Your task to perform on an android device: Search for "razer blade" on walmart, select the first entry, add it to the cart, then select checkout. Image 0: 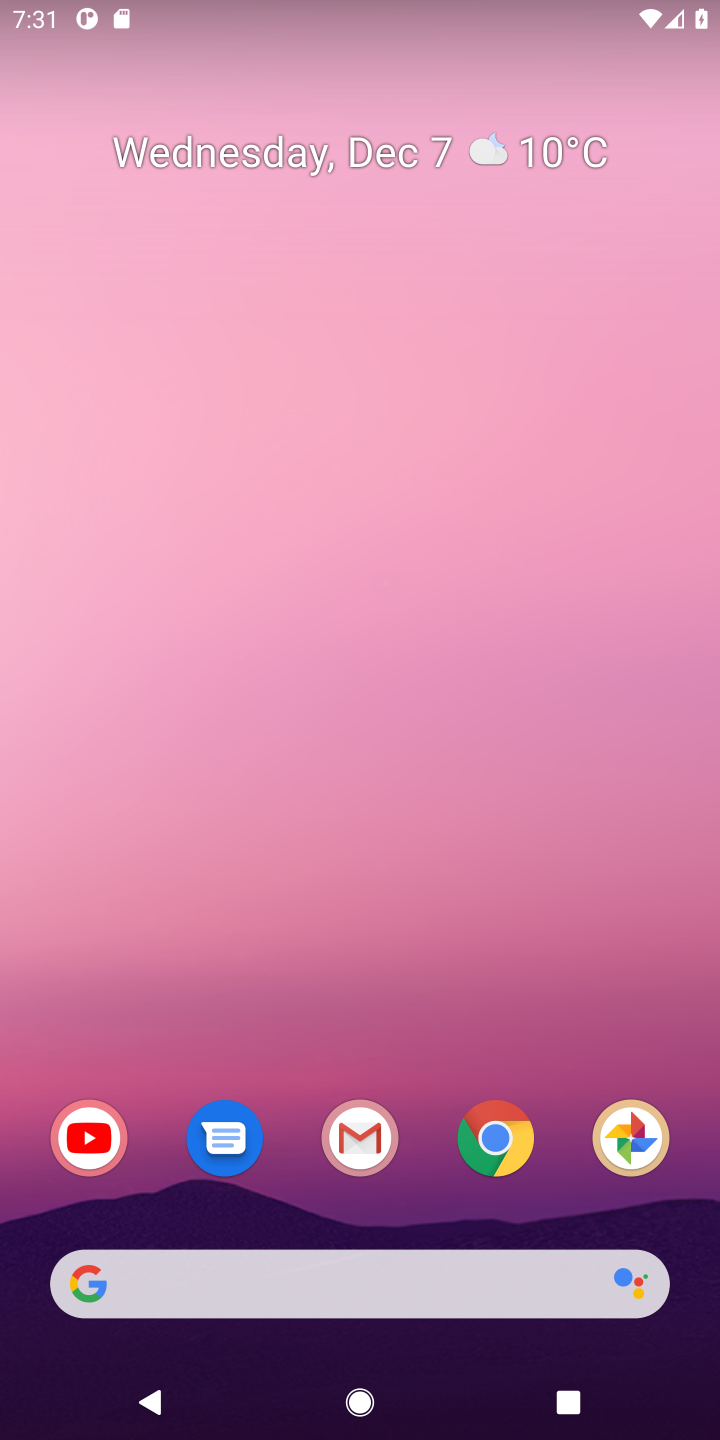
Step 0: press home button
Your task to perform on an android device: Search for "razer blade" on walmart, select the first entry, add it to the cart, then select checkout. Image 1: 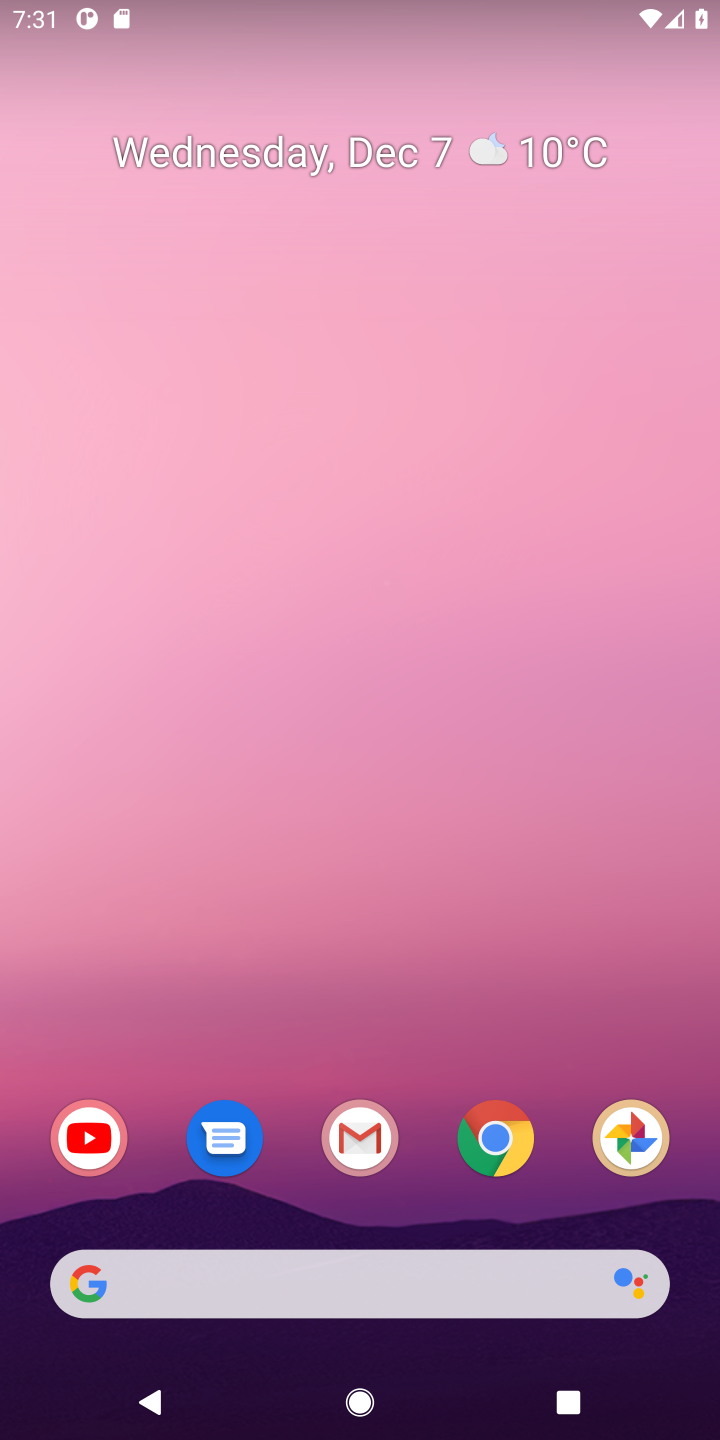
Step 1: click (175, 1276)
Your task to perform on an android device: Search for "razer blade" on walmart, select the first entry, add it to the cart, then select checkout. Image 2: 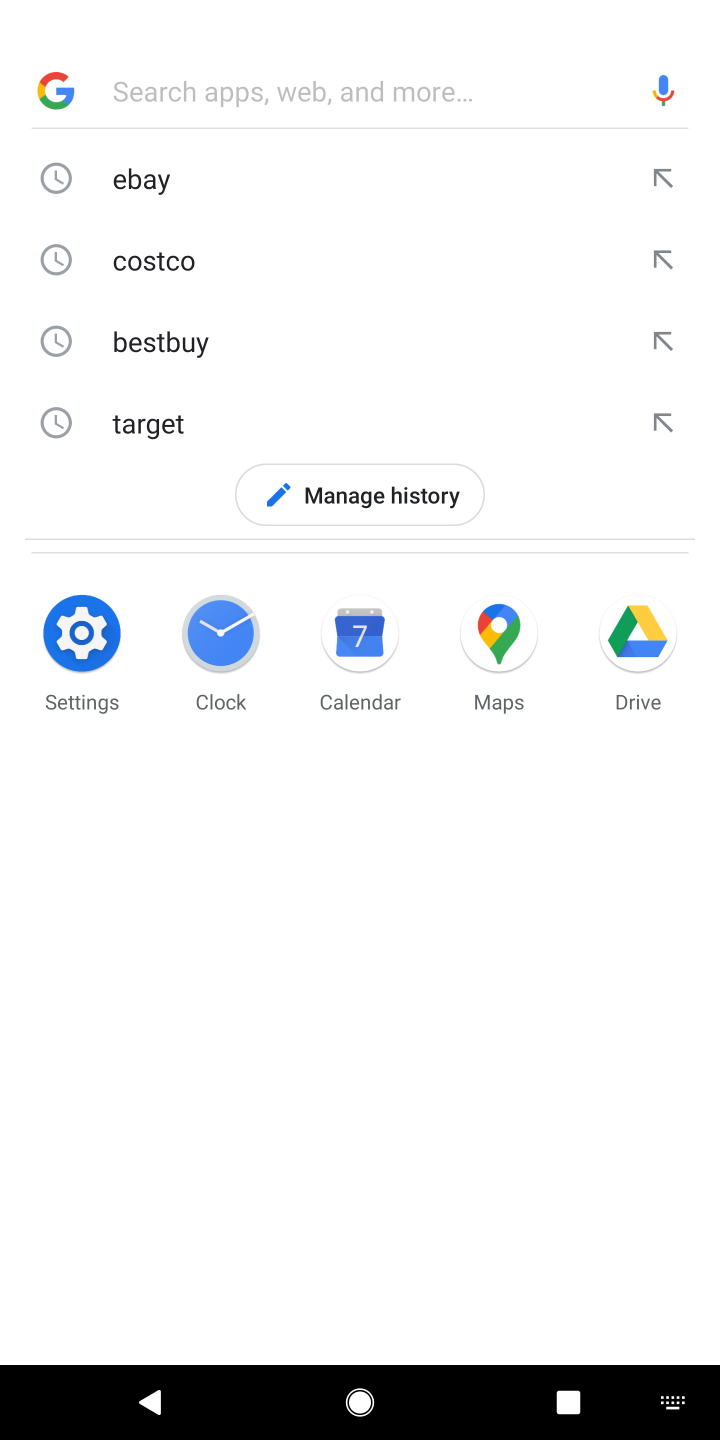
Step 2: type "walmart"
Your task to perform on an android device: Search for "razer blade" on walmart, select the first entry, add it to the cart, then select checkout. Image 3: 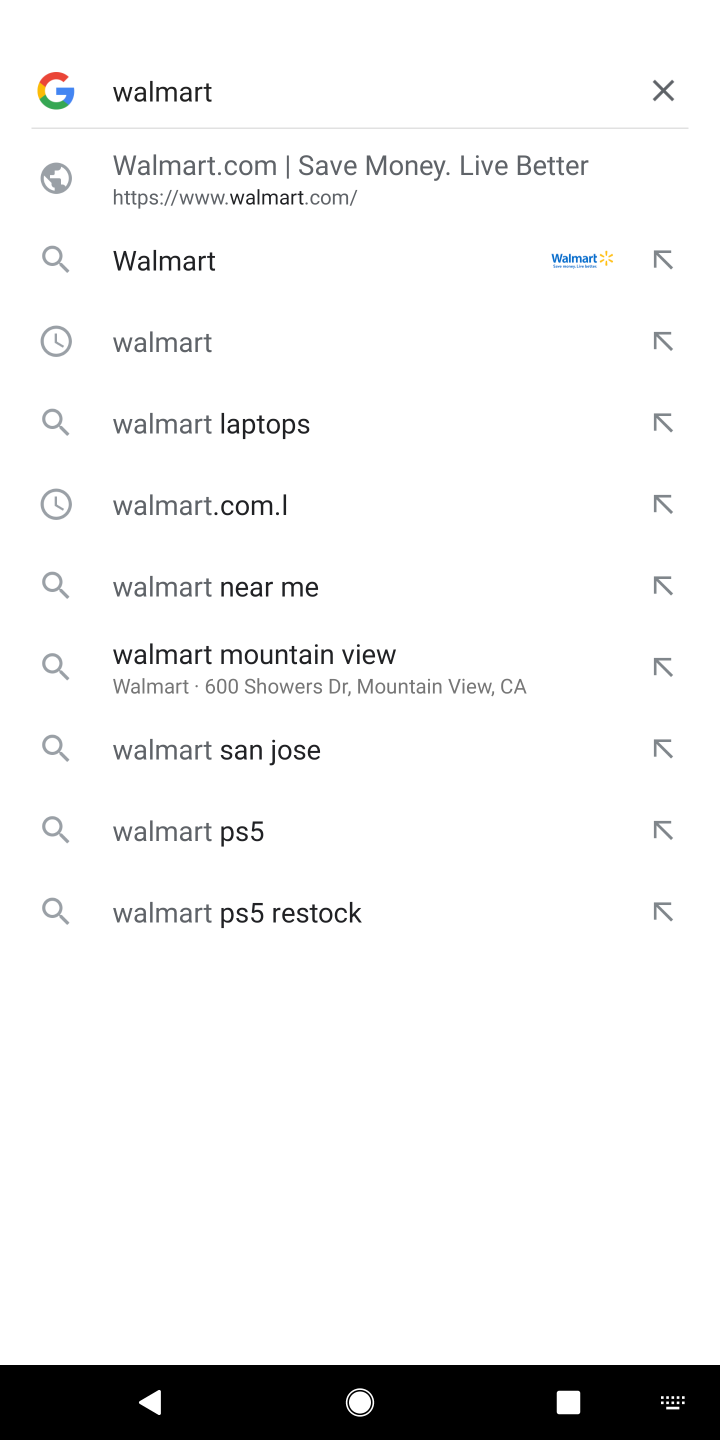
Step 3: press enter
Your task to perform on an android device: Search for "razer blade" on walmart, select the first entry, add it to the cart, then select checkout. Image 4: 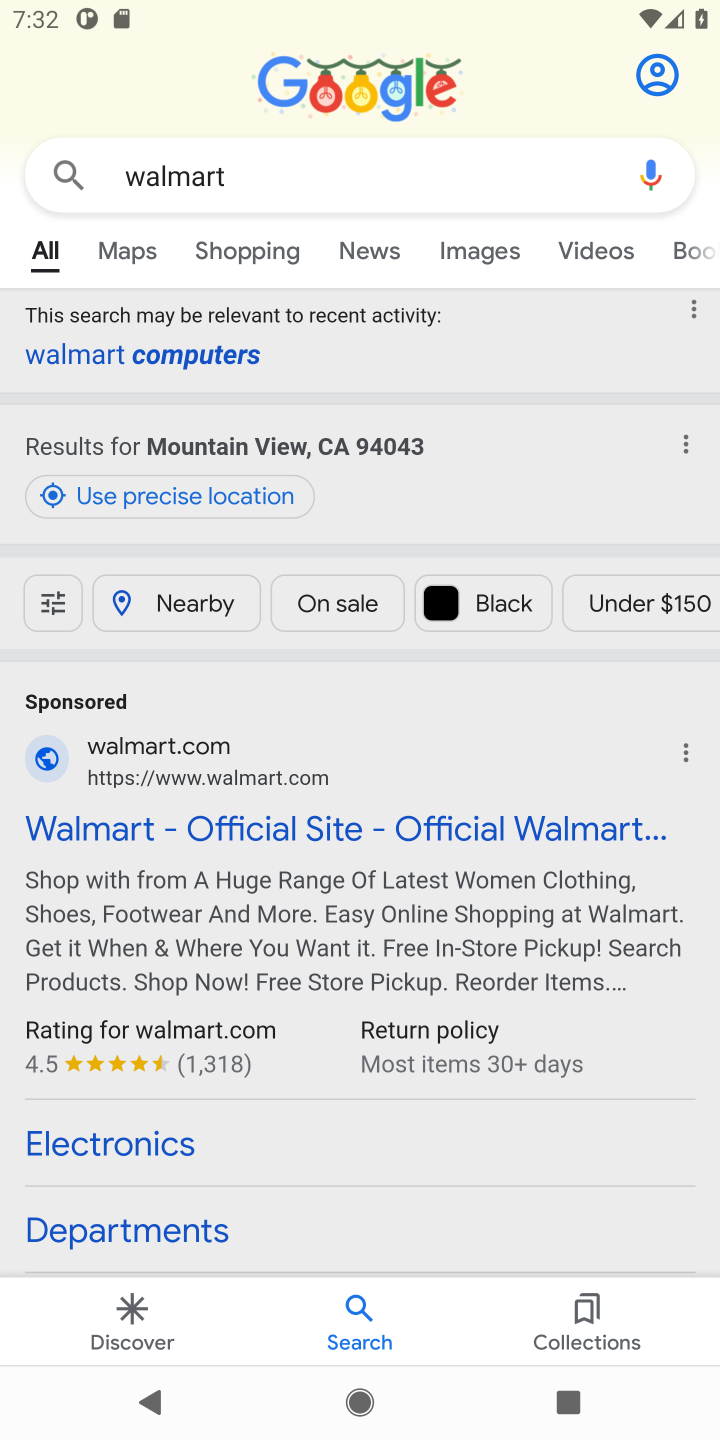
Step 4: click (484, 827)
Your task to perform on an android device: Search for "razer blade" on walmart, select the first entry, add it to the cart, then select checkout. Image 5: 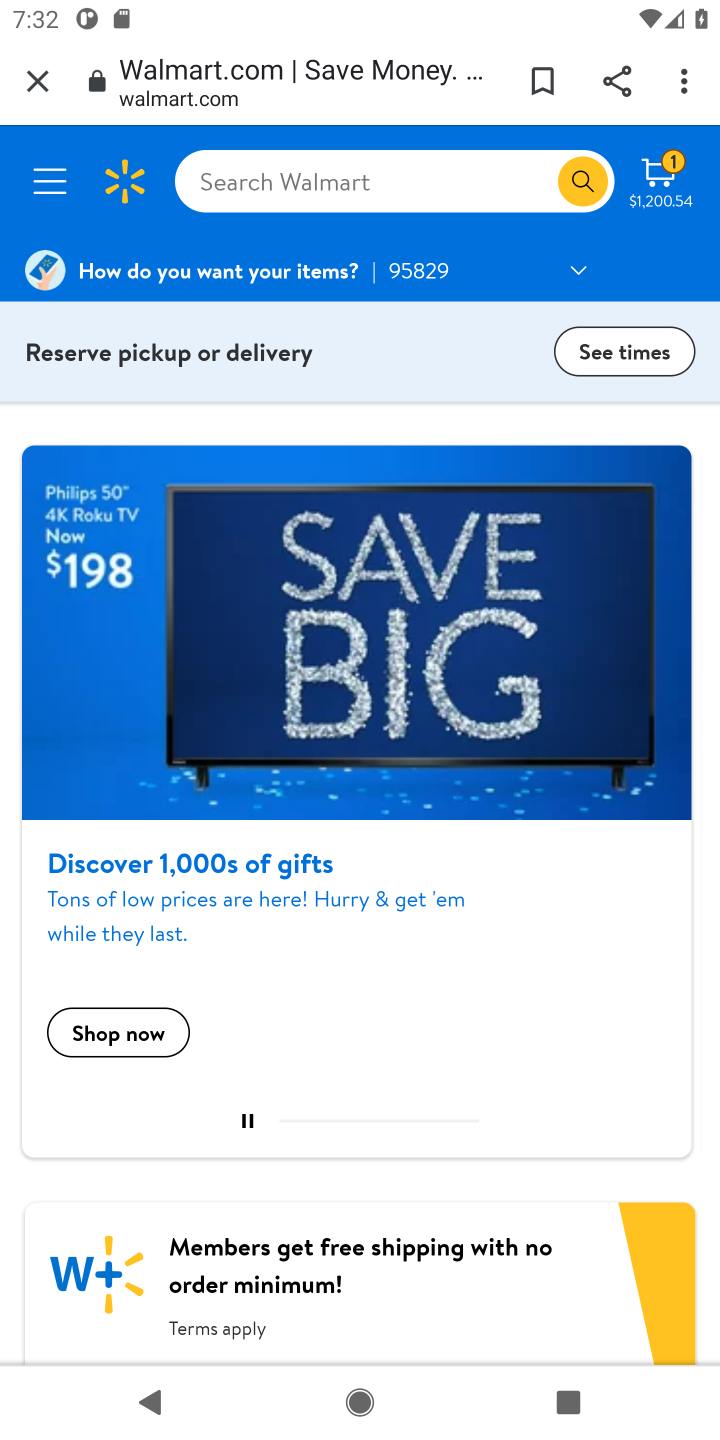
Step 5: click (284, 173)
Your task to perform on an android device: Search for "razer blade" on walmart, select the first entry, add it to the cart, then select checkout. Image 6: 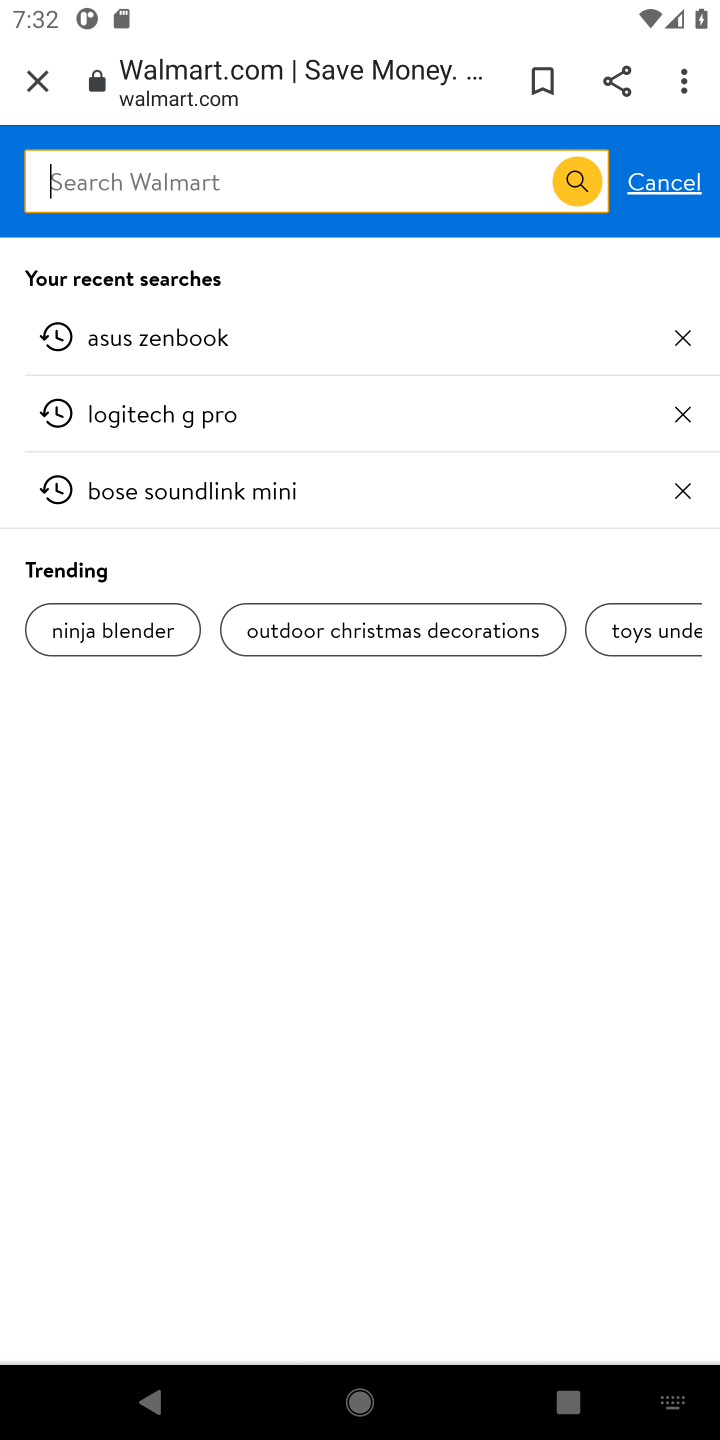
Step 6: press enter
Your task to perform on an android device: Search for "razer blade" on walmart, select the first entry, add it to the cart, then select checkout. Image 7: 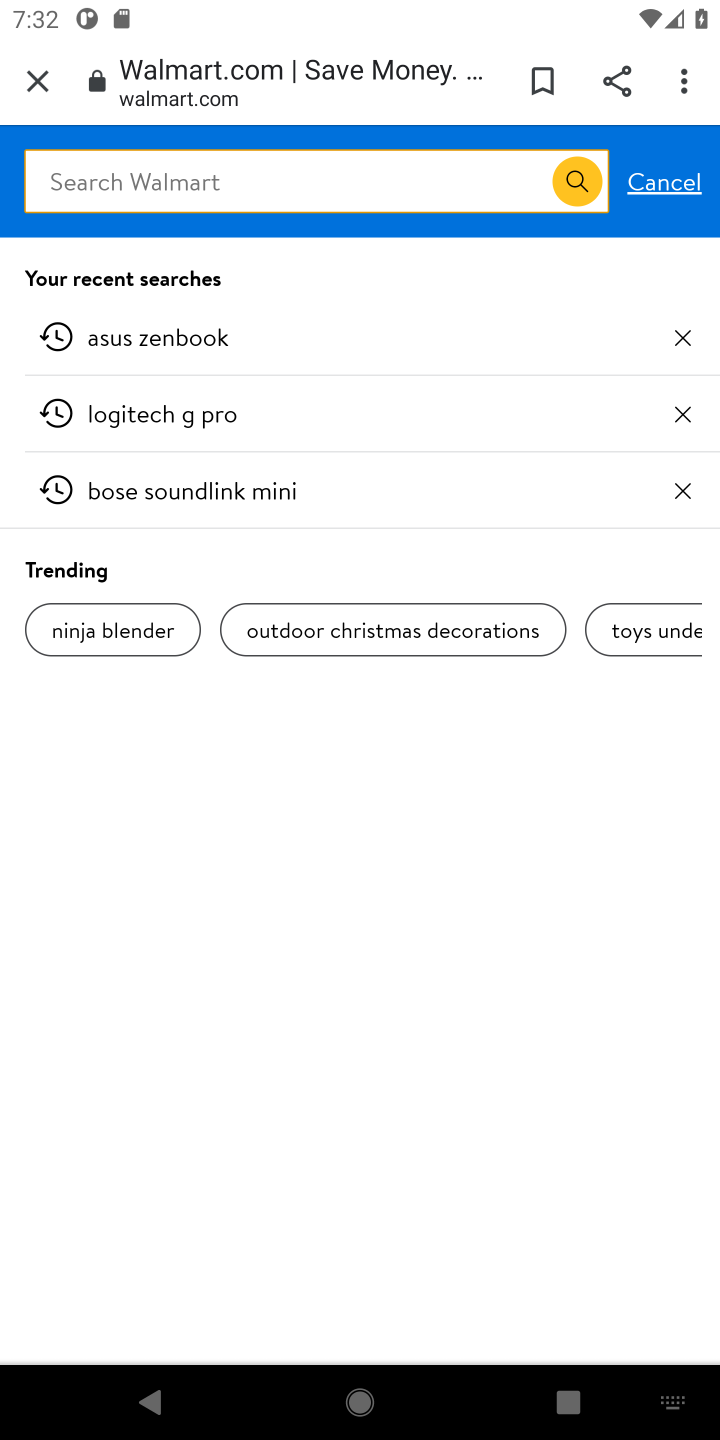
Step 7: type "razer blade"
Your task to perform on an android device: Search for "razer blade" on walmart, select the first entry, add it to the cart, then select checkout. Image 8: 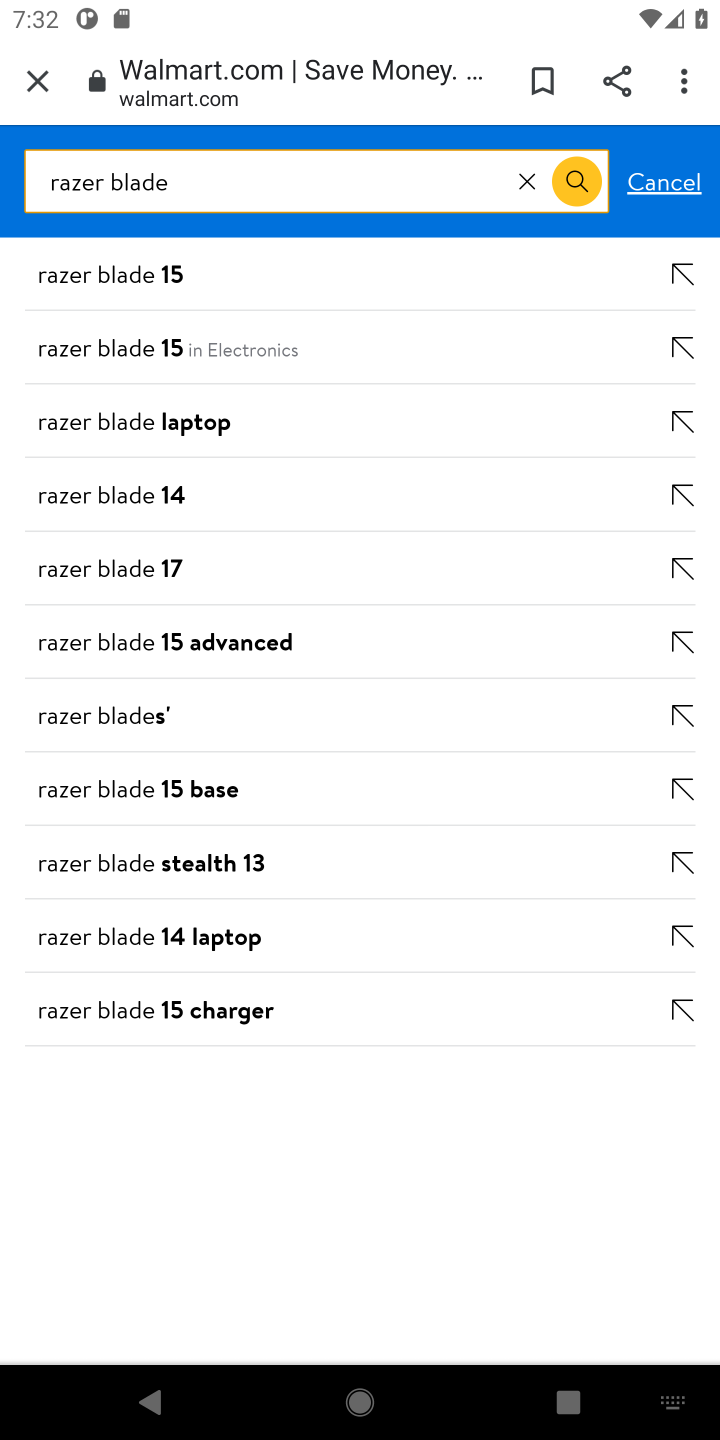
Step 8: press enter
Your task to perform on an android device: Search for "razer blade" on walmart, select the first entry, add it to the cart, then select checkout. Image 9: 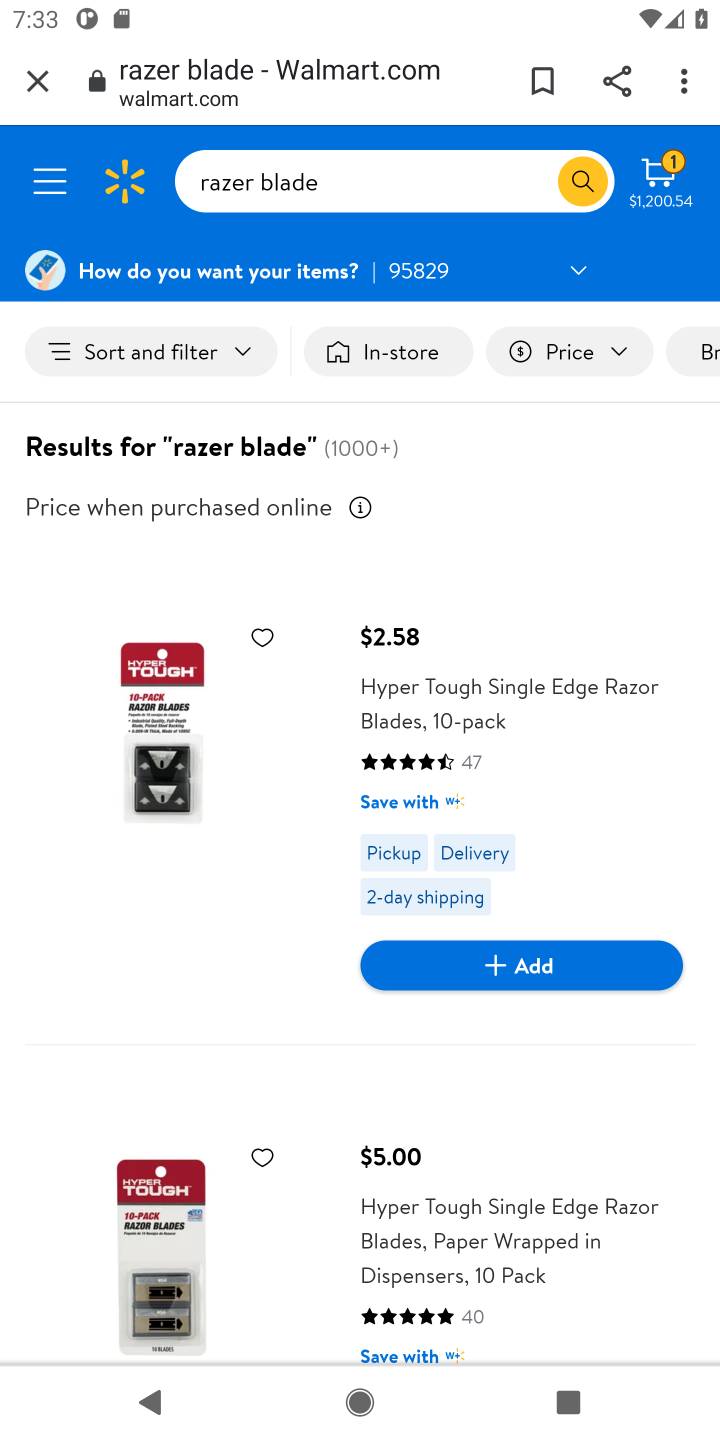
Step 9: click (521, 968)
Your task to perform on an android device: Search for "razer blade" on walmart, select the first entry, add it to the cart, then select checkout. Image 10: 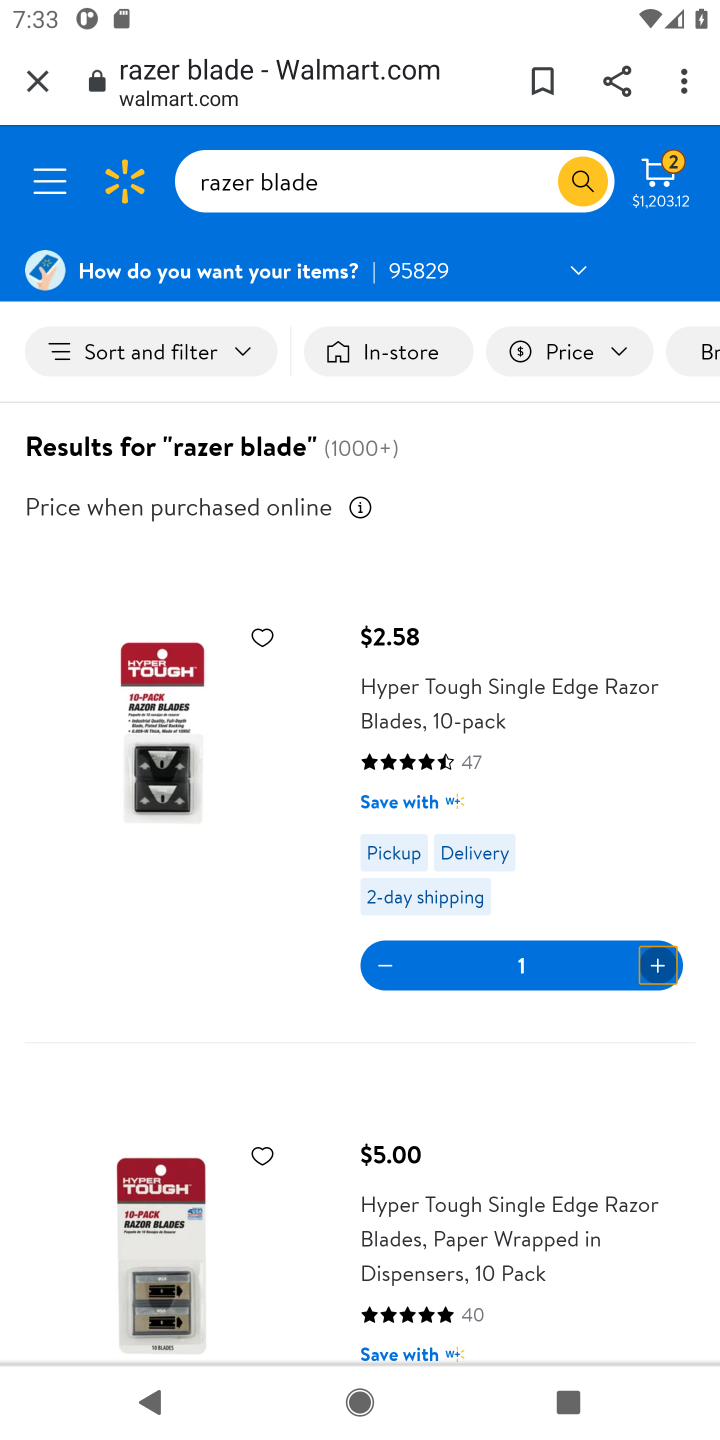
Step 10: click (670, 169)
Your task to perform on an android device: Search for "razer blade" on walmart, select the first entry, add it to the cart, then select checkout. Image 11: 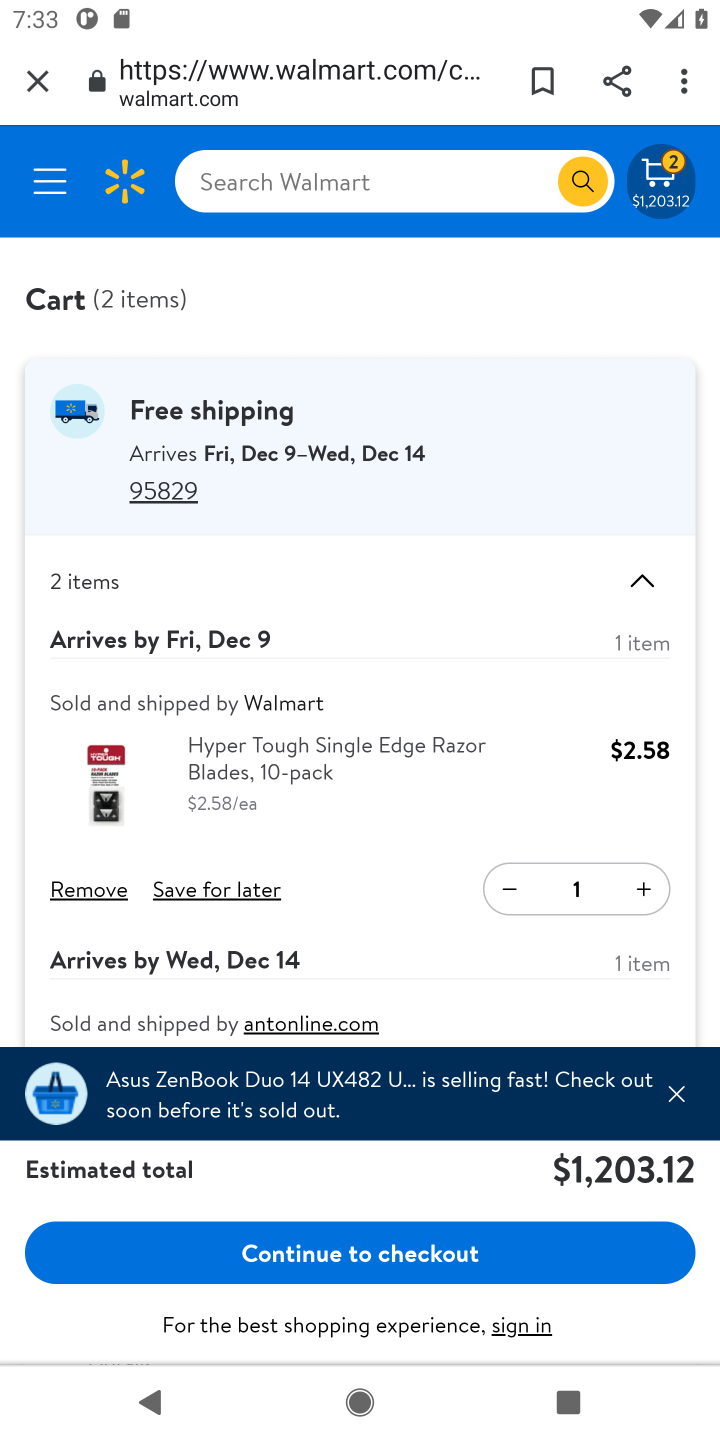
Step 11: click (426, 1263)
Your task to perform on an android device: Search for "razer blade" on walmart, select the first entry, add it to the cart, then select checkout. Image 12: 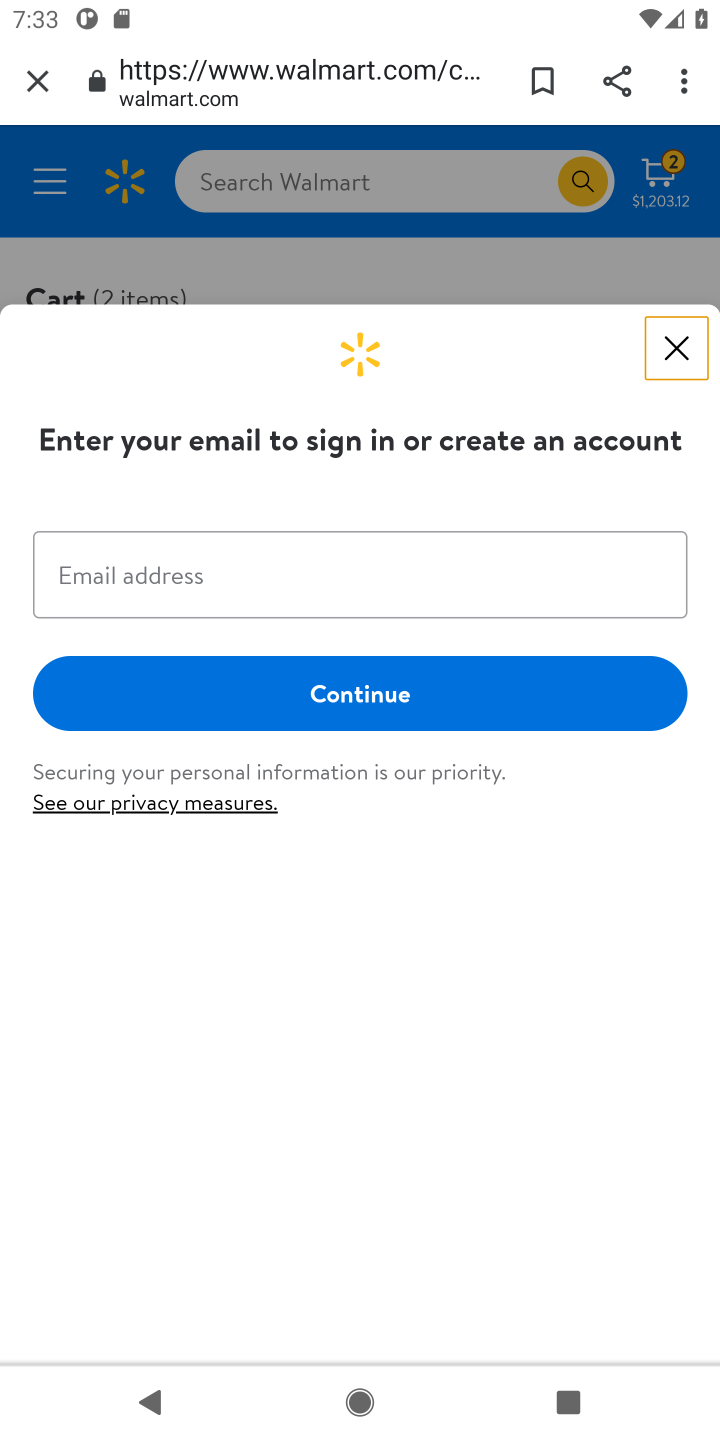
Step 12: task complete